Your task to perform on an android device: turn off improve location accuracy Image 0: 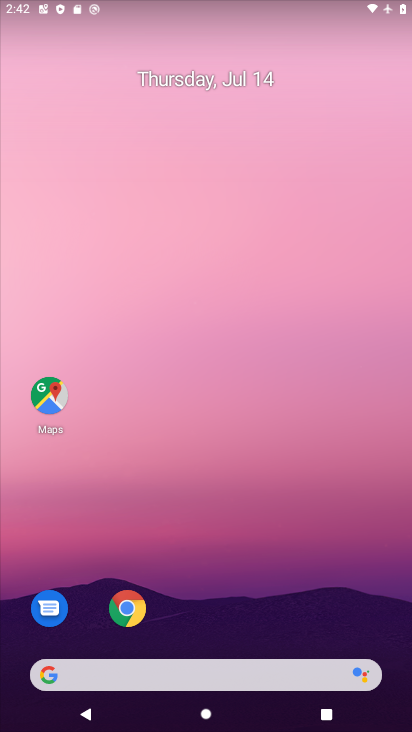
Step 0: drag from (229, 603) to (285, 31)
Your task to perform on an android device: turn off improve location accuracy Image 1: 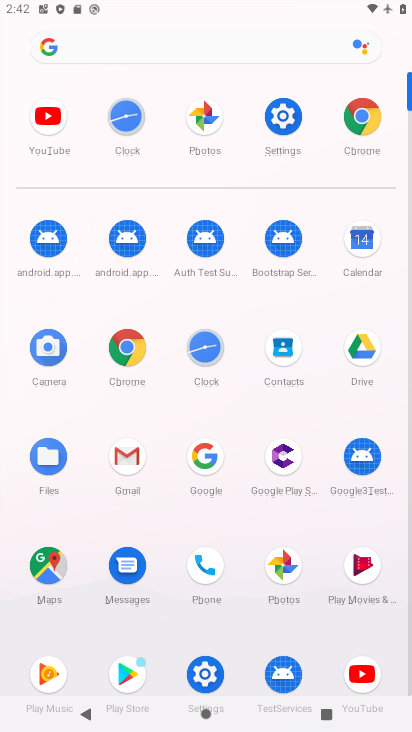
Step 1: click (286, 113)
Your task to perform on an android device: turn off improve location accuracy Image 2: 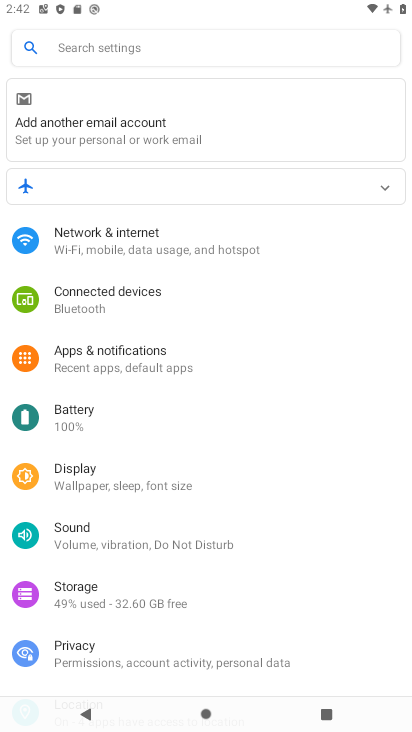
Step 2: drag from (151, 634) to (239, 175)
Your task to perform on an android device: turn off improve location accuracy Image 3: 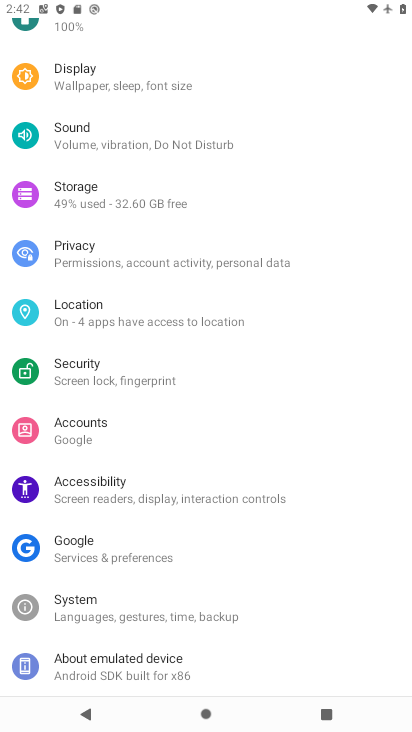
Step 3: click (112, 309)
Your task to perform on an android device: turn off improve location accuracy Image 4: 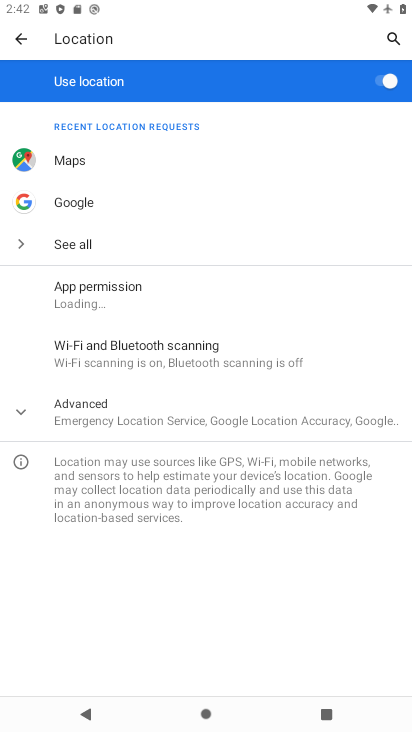
Step 4: click (134, 420)
Your task to perform on an android device: turn off improve location accuracy Image 5: 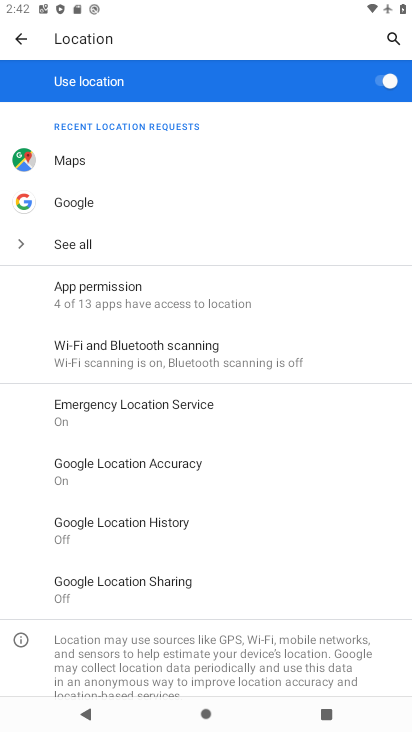
Step 5: click (154, 478)
Your task to perform on an android device: turn off improve location accuracy Image 6: 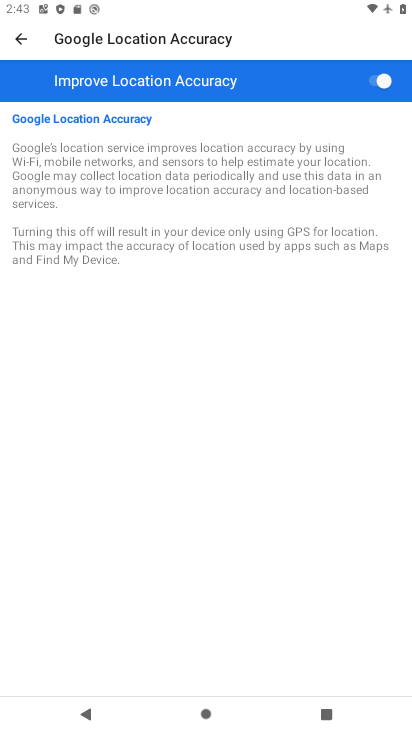
Step 6: click (384, 86)
Your task to perform on an android device: turn off improve location accuracy Image 7: 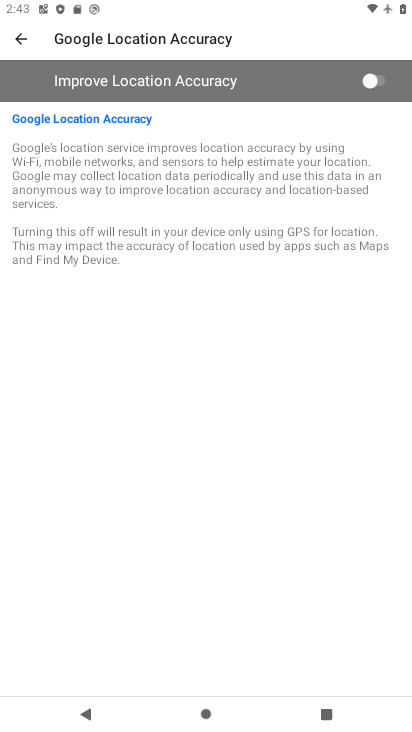
Step 7: task complete